Your task to perform on an android device: all mails in gmail Image 0: 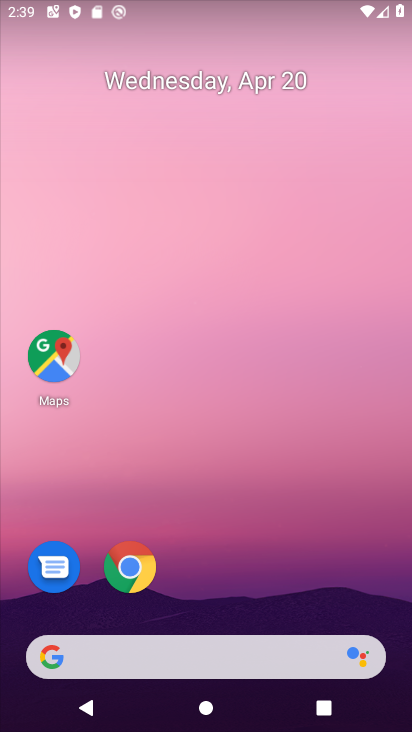
Step 0: drag from (186, 607) to (237, 137)
Your task to perform on an android device: all mails in gmail Image 1: 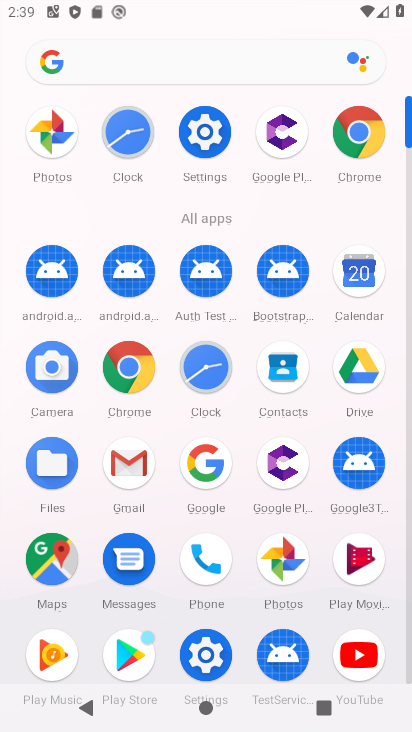
Step 1: click (136, 600)
Your task to perform on an android device: all mails in gmail Image 2: 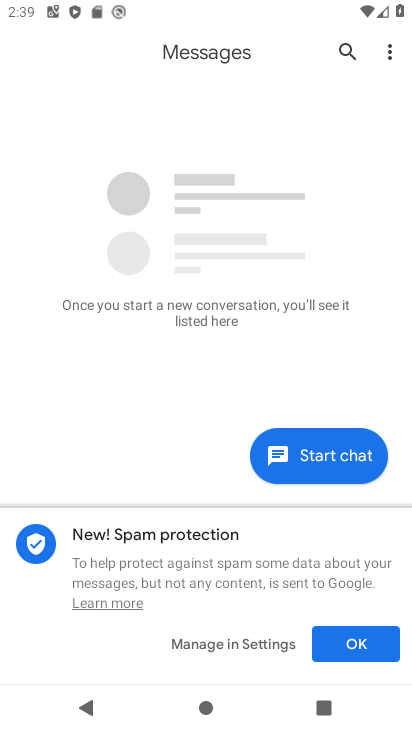
Step 2: press home button
Your task to perform on an android device: all mails in gmail Image 3: 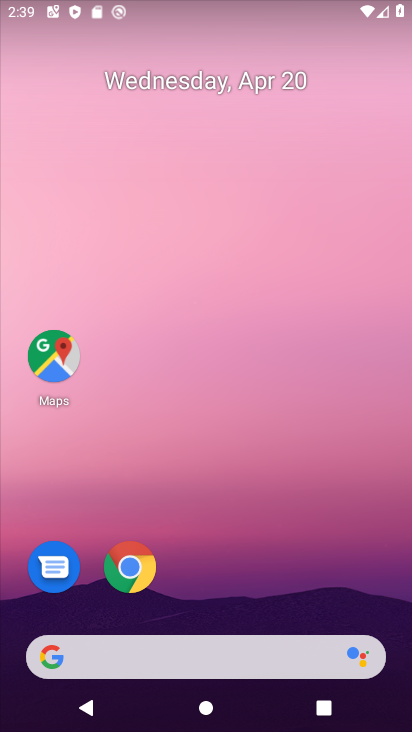
Step 3: drag from (217, 587) to (319, 30)
Your task to perform on an android device: all mails in gmail Image 4: 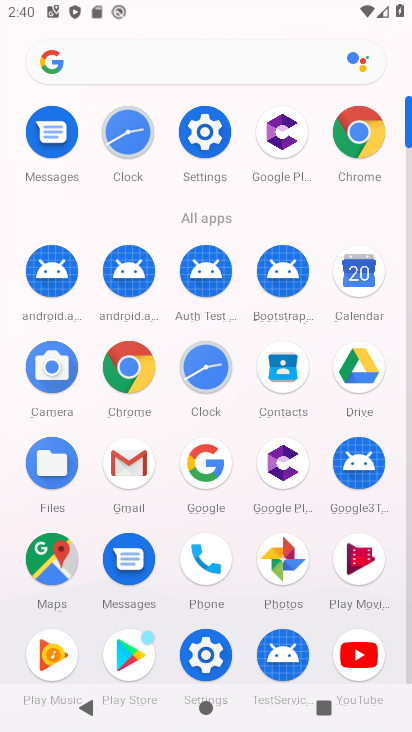
Step 4: click (124, 464)
Your task to perform on an android device: all mails in gmail Image 5: 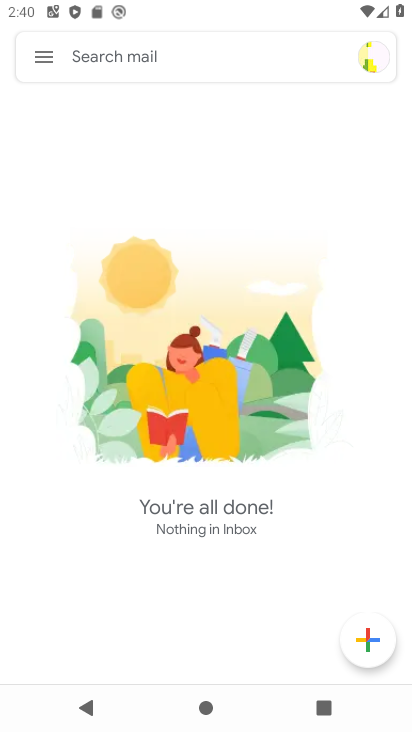
Step 5: click (51, 62)
Your task to perform on an android device: all mails in gmail Image 6: 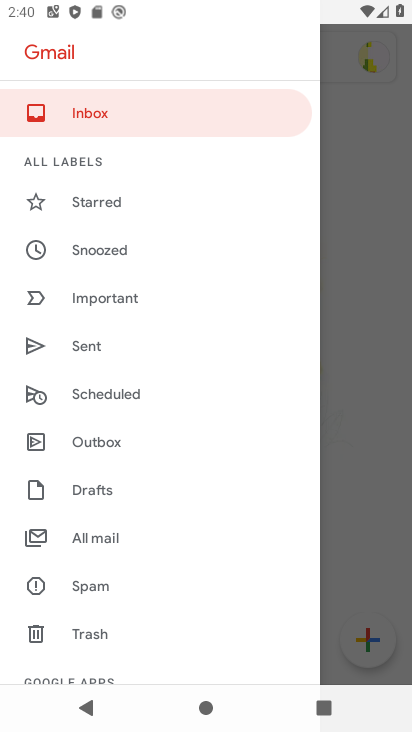
Step 6: click (101, 533)
Your task to perform on an android device: all mails in gmail Image 7: 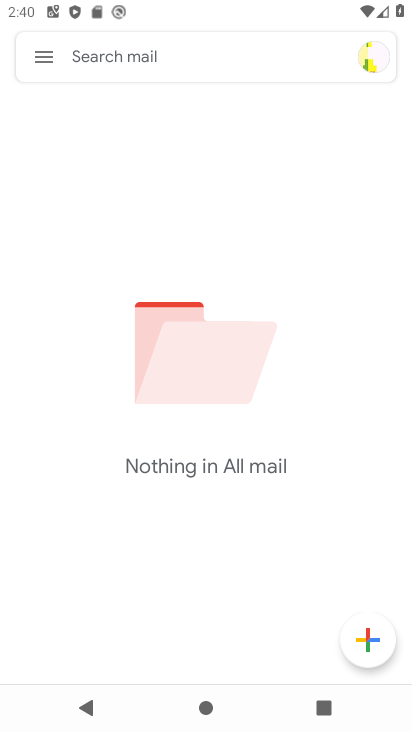
Step 7: task complete